Your task to perform on an android device: toggle translation in the chrome app Image 0: 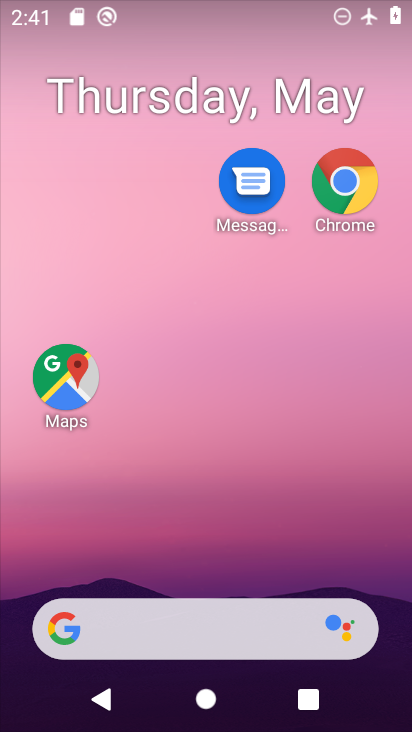
Step 0: drag from (359, 593) to (380, 5)
Your task to perform on an android device: toggle translation in the chrome app Image 1: 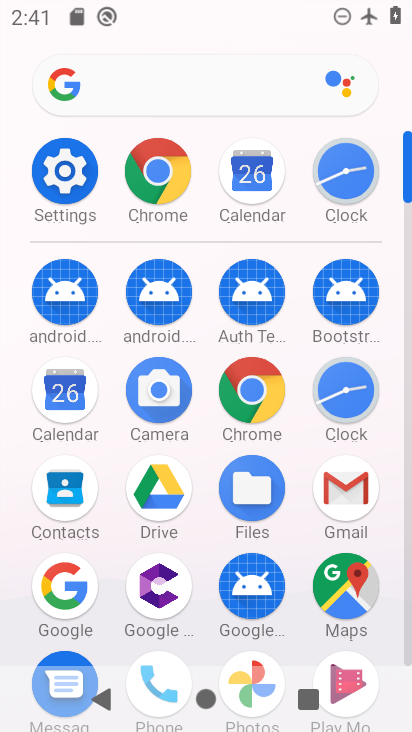
Step 1: click (232, 380)
Your task to perform on an android device: toggle translation in the chrome app Image 2: 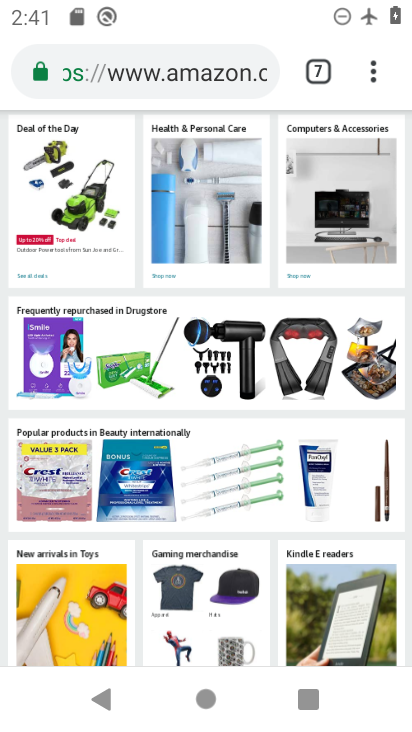
Step 2: click (376, 71)
Your task to perform on an android device: toggle translation in the chrome app Image 3: 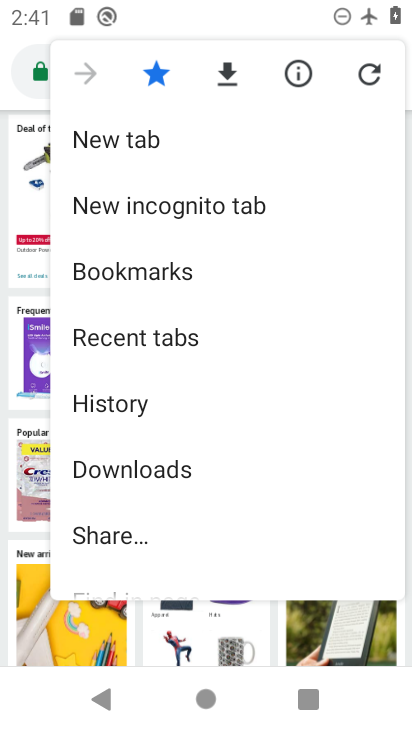
Step 3: drag from (228, 535) to (257, 155)
Your task to perform on an android device: toggle translation in the chrome app Image 4: 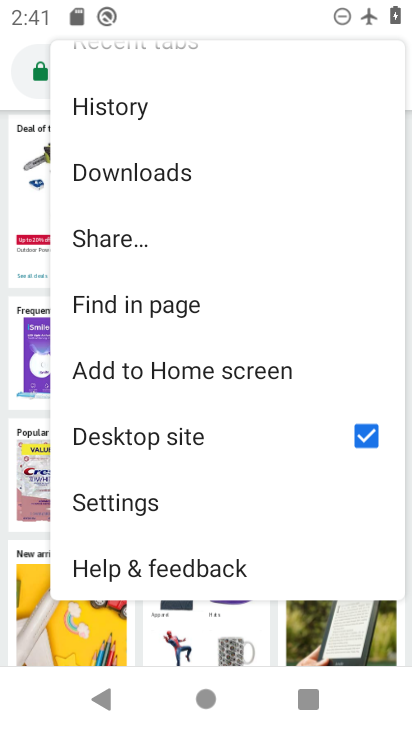
Step 4: drag from (186, 510) to (230, 250)
Your task to perform on an android device: toggle translation in the chrome app Image 5: 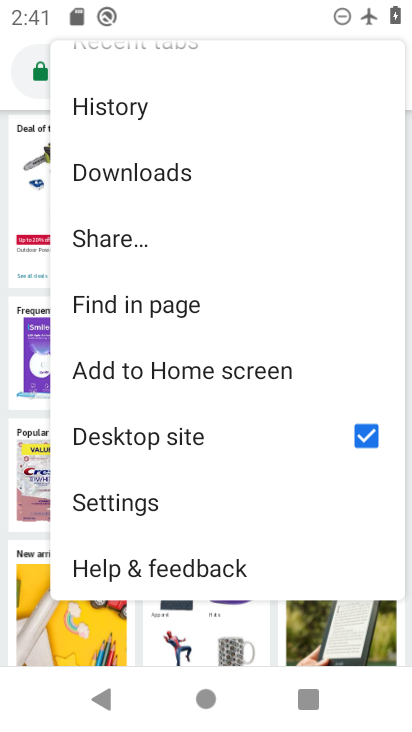
Step 5: click (134, 503)
Your task to perform on an android device: toggle translation in the chrome app Image 6: 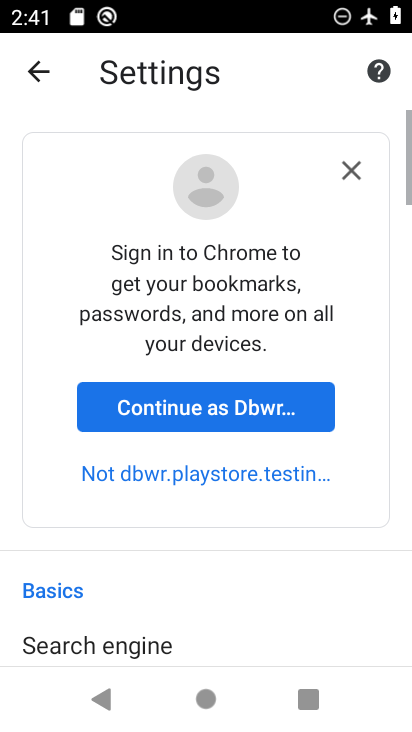
Step 6: drag from (181, 656) to (167, 126)
Your task to perform on an android device: toggle translation in the chrome app Image 7: 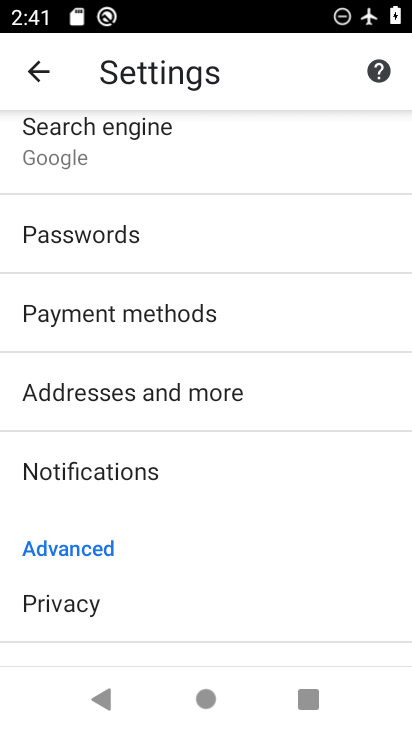
Step 7: drag from (181, 611) to (182, 141)
Your task to perform on an android device: toggle translation in the chrome app Image 8: 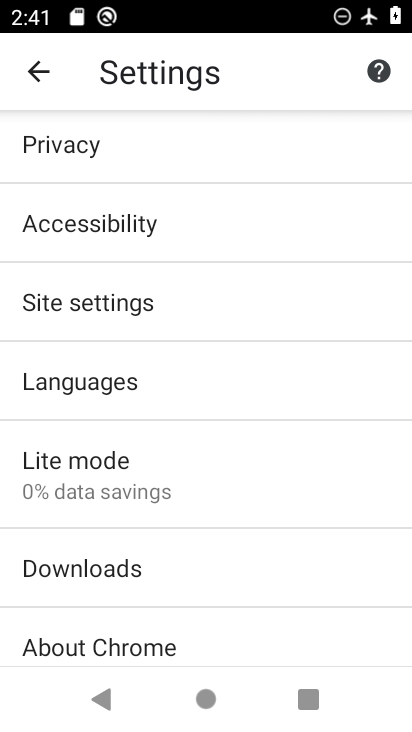
Step 8: click (157, 327)
Your task to perform on an android device: toggle translation in the chrome app Image 9: 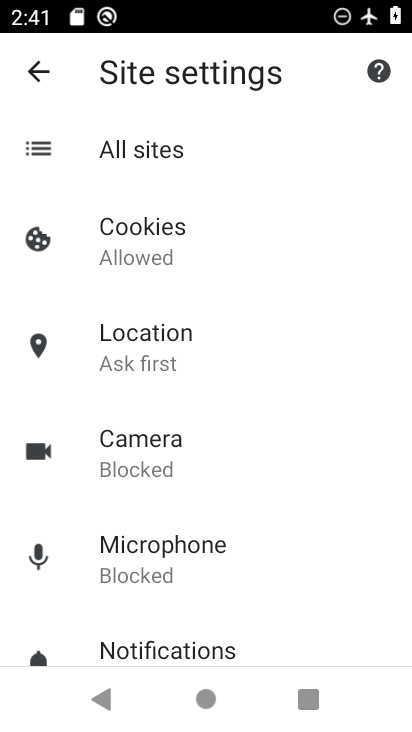
Step 9: drag from (287, 618) to (332, 153)
Your task to perform on an android device: toggle translation in the chrome app Image 10: 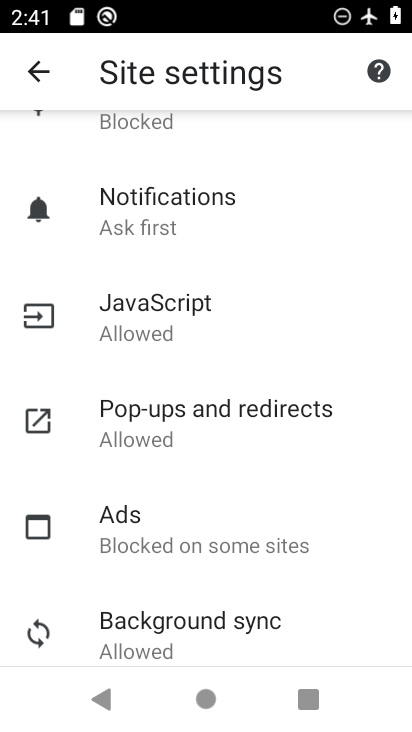
Step 10: press back button
Your task to perform on an android device: toggle translation in the chrome app Image 11: 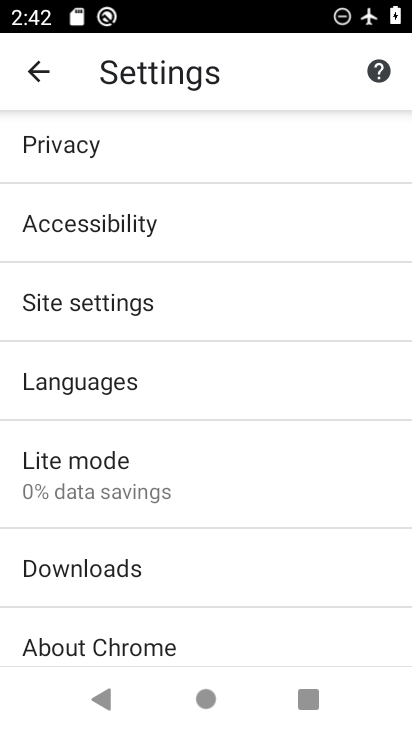
Step 11: click (180, 395)
Your task to perform on an android device: toggle translation in the chrome app Image 12: 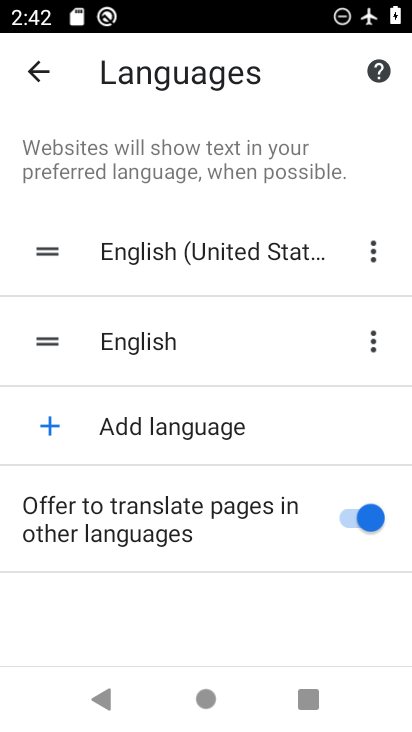
Step 12: click (357, 512)
Your task to perform on an android device: toggle translation in the chrome app Image 13: 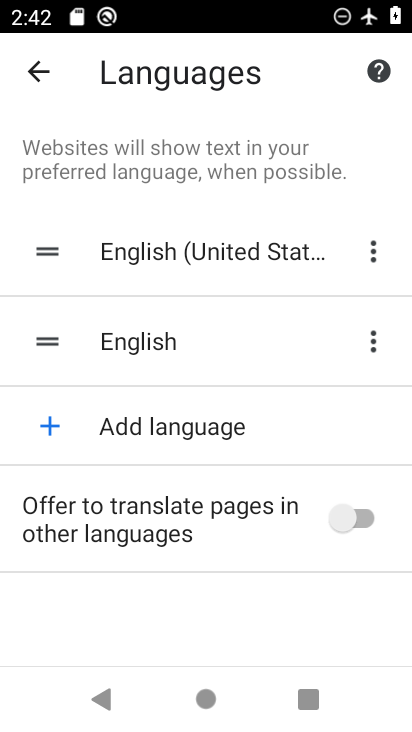
Step 13: task complete